Your task to perform on an android device: Go to Amazon Image 0: 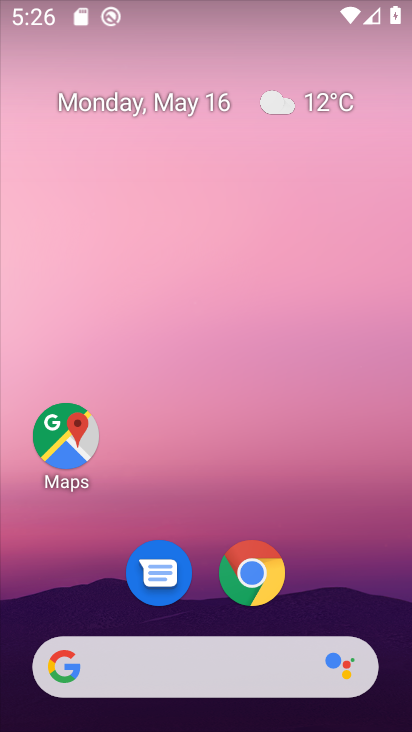
Step 0: click (246, 579)
Your task to perform on an android device: Go to Amazon Image 1: 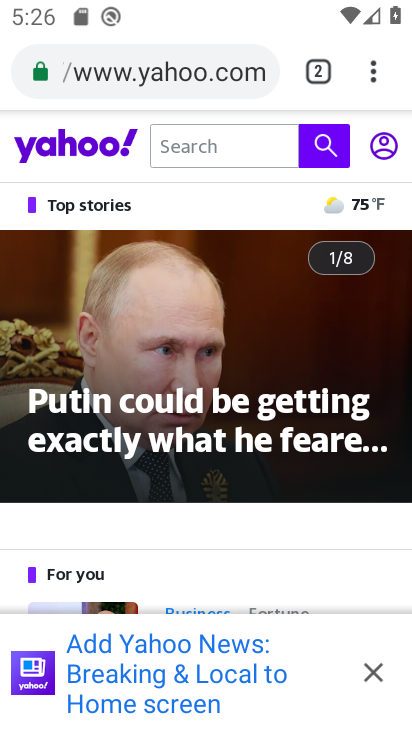
Step 1: click (314, 80)
Your task to perform on an android device: Go to Amazon Image 2: 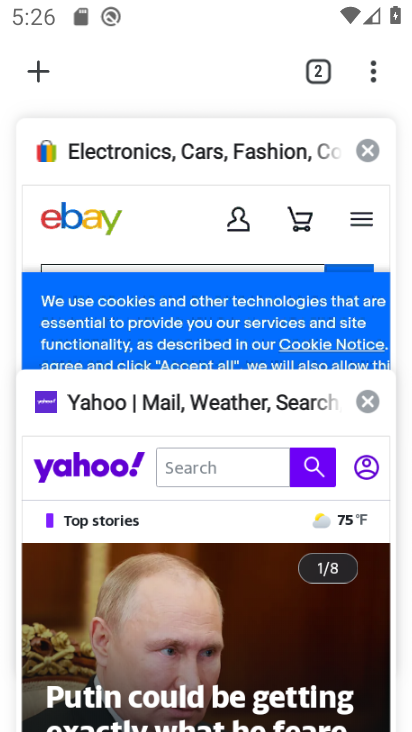
Step 2: click (39, 62)
Your task to perform on an android device: Go to Amazon Image 3: 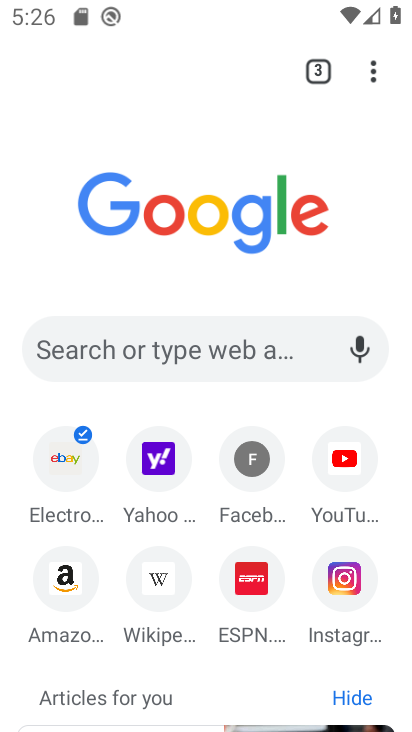
Step 3: click (74, 585)
Your task to perform on an android device: Go to Amazon Image 4: 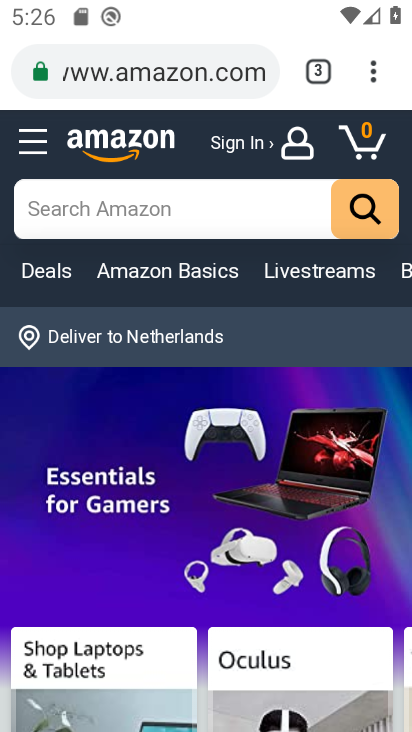
Step 4: task complete